Your task to perform on an android device: Go to Android settings Image 0: 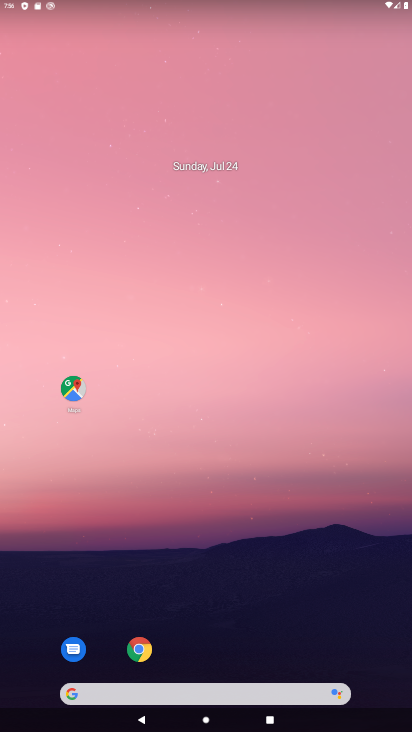
Step 0: click (228, 136)
Your task to perform on an android device: Go to Android settings Image 1: 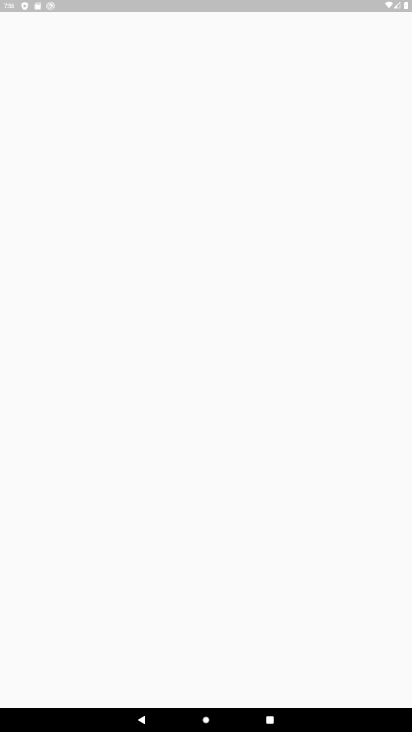
Step 1: press home button
Your task to perform on an android device: Go to Android settings Image 2: 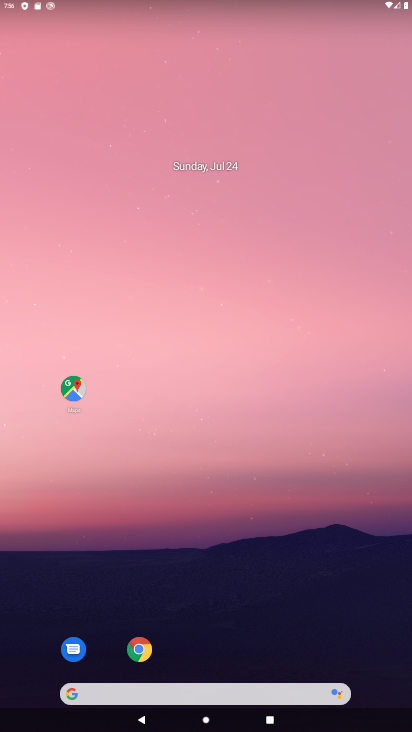
Step 2: drag from (197, 684) to (183, 155)
Your task to perform on an android device: Go to Android settings Image 3: 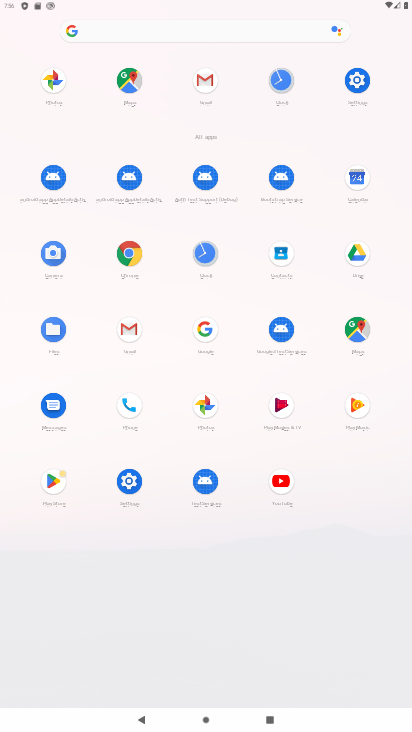
Step 3: click (146, 487)
Your task to perform on an android device: Go to Android settings Image 4: 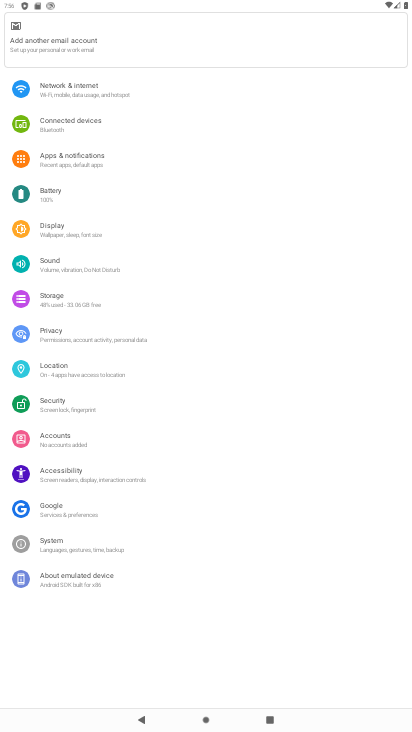
Step 4: task complete